Your task to perform on an android device: turn off improve location accuracy Image 0: 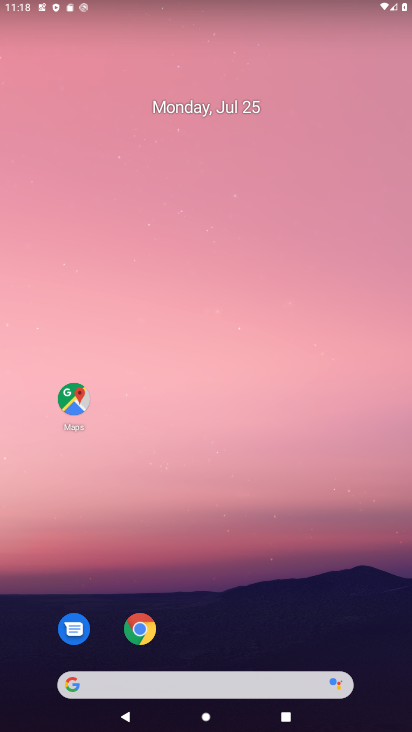
Step 0: drag from (184, 635) to (184, 184)
Your task to perform on an android device: turn off improve location accuracy Image 1: 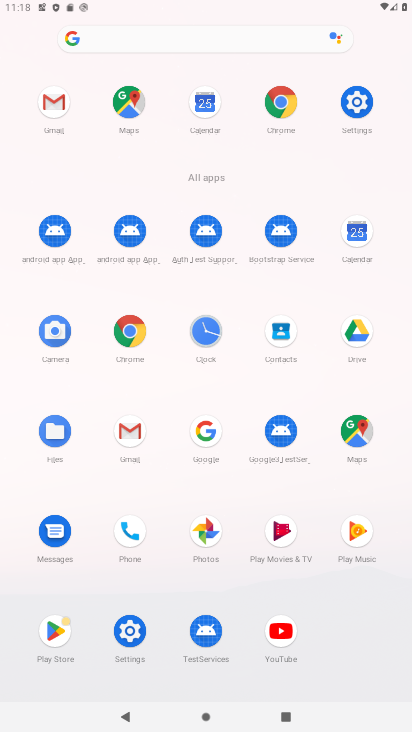
Step 1: click (337, 100)
Your task to perform on an android device: turn off improve location accuracy Image 2: 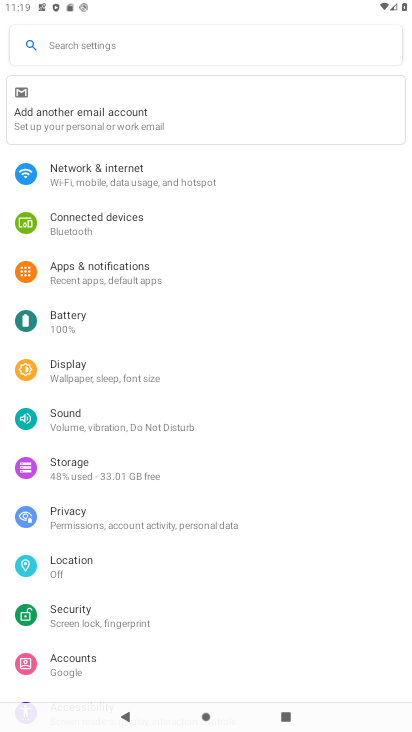
Step 2: click (111, 564)
Your task to perform on an android device: turn off improve location accuracy Image 3: 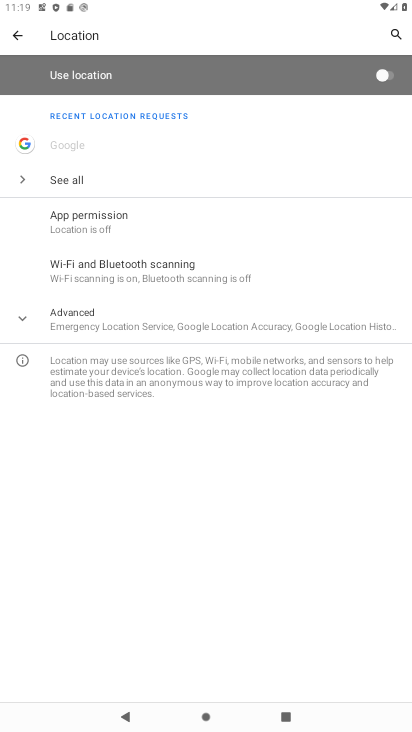
Step 3: click (139, 316)
Your task to perform on an android device: turn off improve location accuracy Image 4: 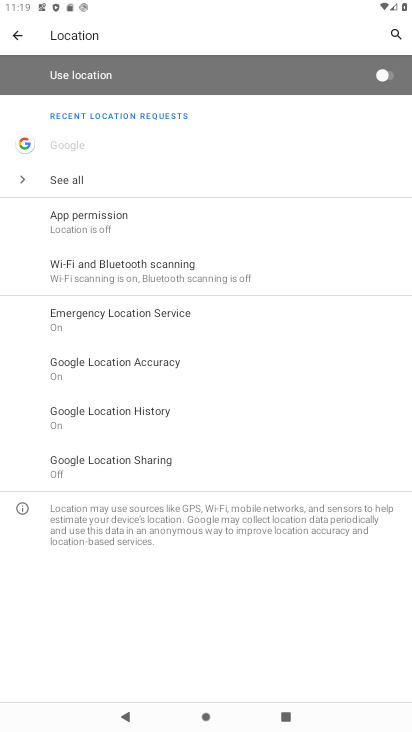
Step 4: click (188, 369)
Your task to perform on an android device: turn off improve location accuracy Image 5: 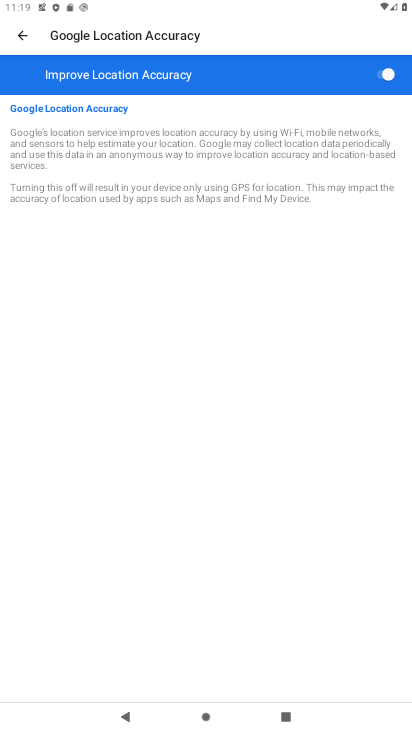
Step 5: click (383, 64)
Your task to perform on an android device: turn off improve location accuracy Image 6: 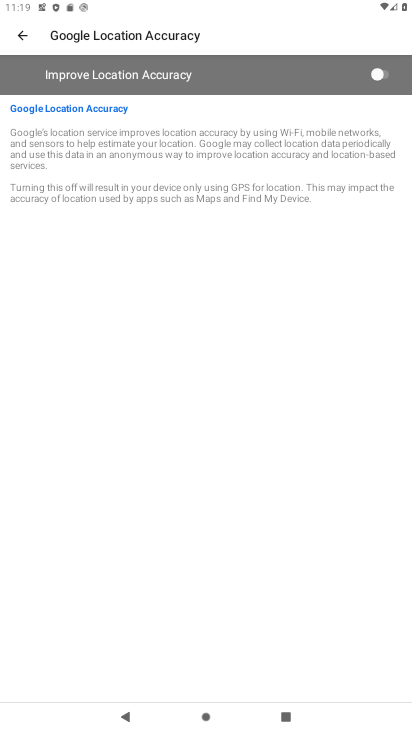
Step 6: task complete